Your task to perform on an android device: manage bookmarks in the chrome app Image 0: 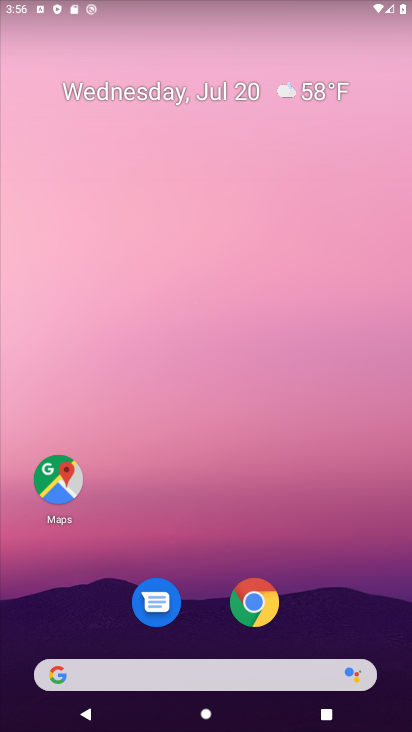
Step 0: click (249, 598)
Your task to perform on an android device: manage bookmarks in the chrome app Image 1: 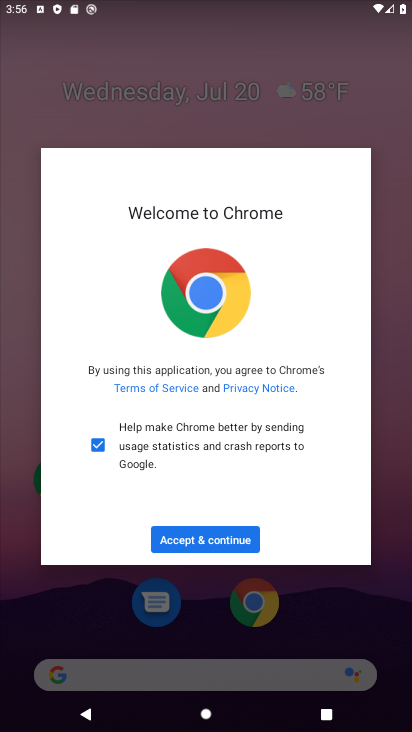
Step 1: click (185, 545)
Your task to perform on an android device: manage bookmarks in the chrome app Image 2: 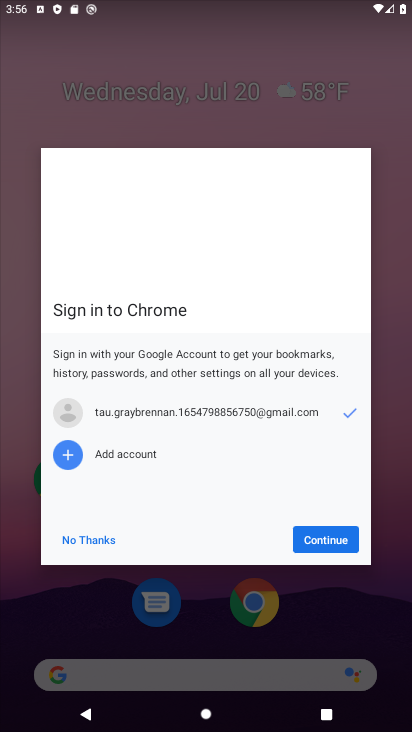
Step 2: click (314, 543)
Your task to perform on an android device: manage bookmarks in the chrome app Image 3: 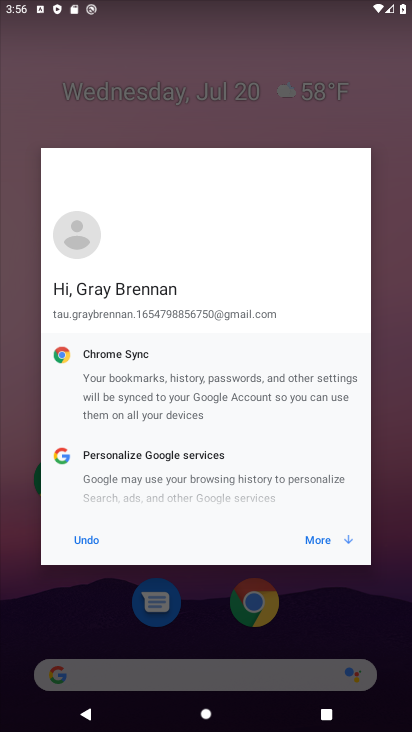
Step 3: click (314, 543)
Your task to perform on an android device: manage bookmarks in the chrome app Image 4: 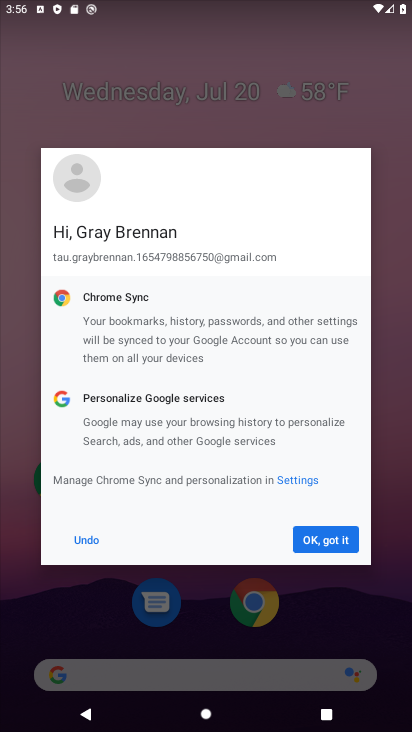
Step 4: click (314, 543)
Your task to perform on an android device: manage bookmarks in the chrome app Image 5: 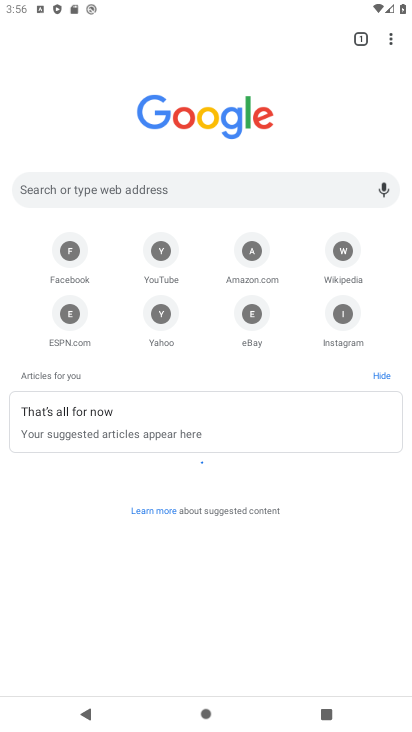
Step 5: click (390, 36)
Your task to perform on an android device: manage bookmarks in the chrome app Image 6: 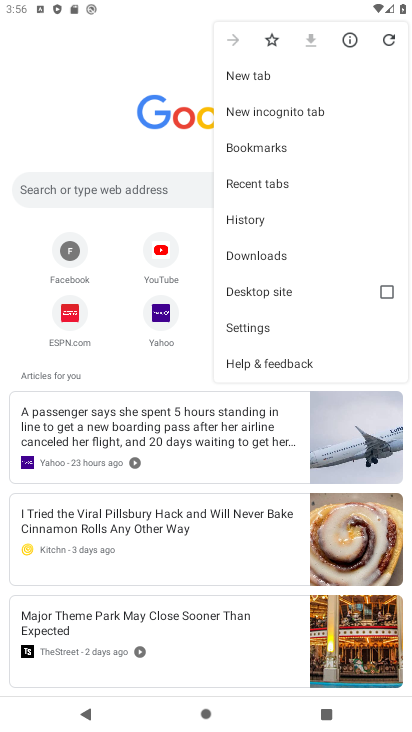
Step 6: click (253, 149)
Your task to perform on an android device: manage bookmarks in the chrome app Image 7: 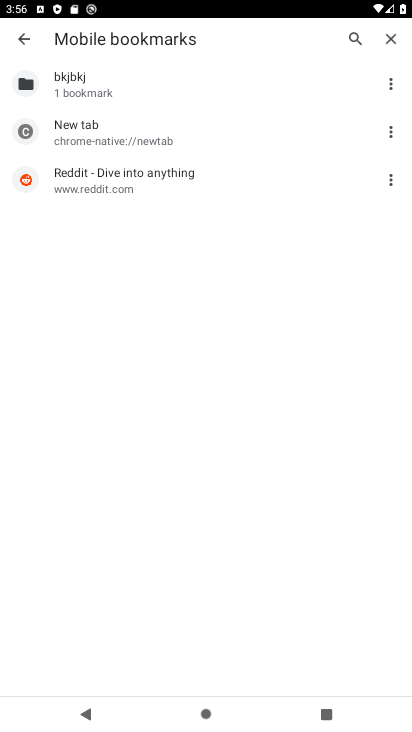
Step 7: click (387, 85)
Your task to perform on an android device: manage bookmarks in the chrome app Image 8: 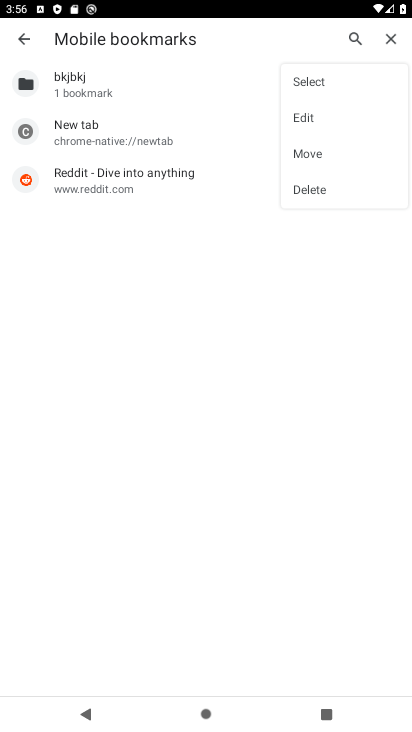
Step 8: click (306, 181)
Your task to perform on an android device: manage bookmarks in the chrome app Image 9: 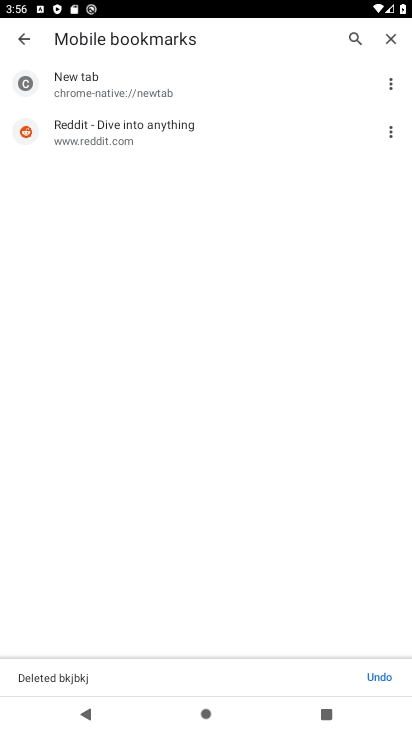
Step 9: task complete